Your task to perform on an android device: turn off location Image 0: 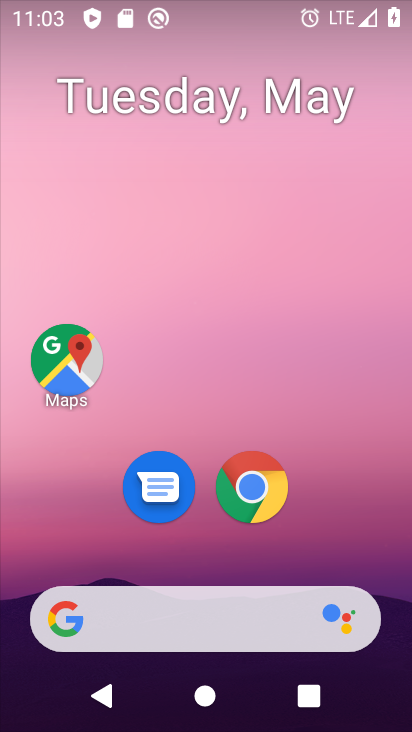
Step 0: drag from (263, 179) to (398, 276)
Your task to perform on an android device: turn off location Image 1: 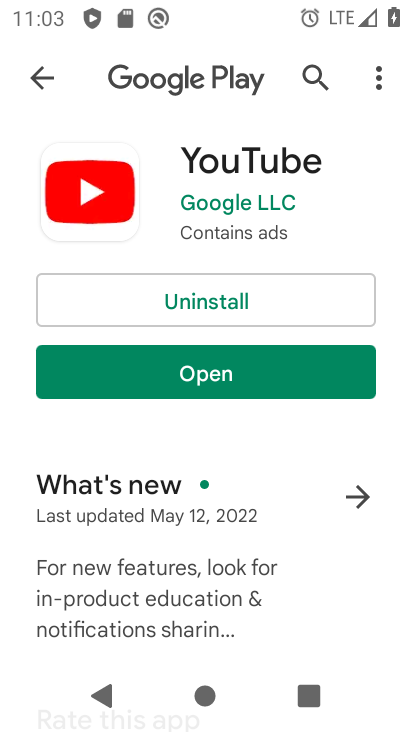
Step 1: press home button
Your task to perform on an android device: turn off location Image 2: 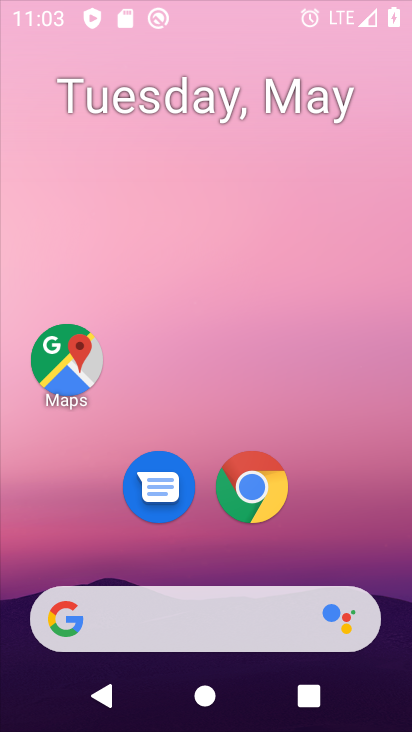
Step 2: drag from (208, 566) to (244, 179)
Your task to perform on an android device: turn off location Image 3: 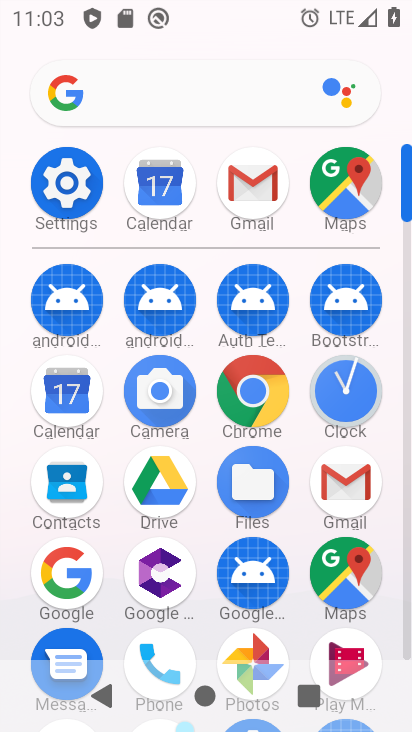
Step 3: click (70, 175)
Your task to perform on an android device: turn off location Image 4: 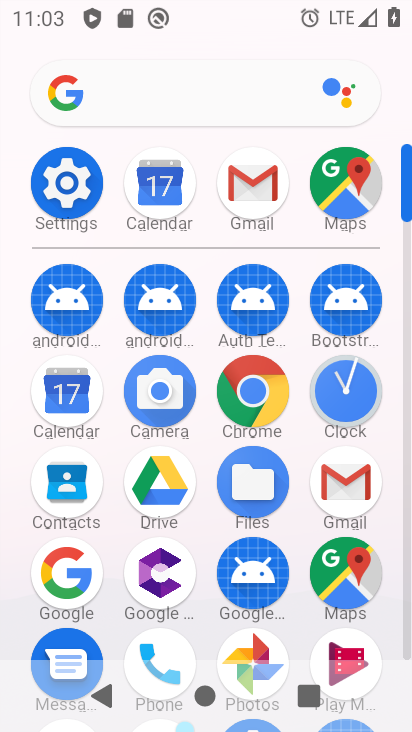
Step 4: click (70, 175)
Your task to perform on an android device: turn off location Image 5: 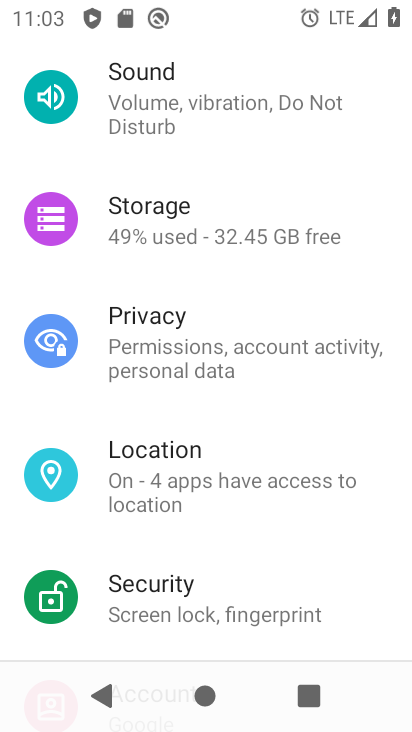
Step 5: click (217, 480)
Your task to perform on an android device: turn off location Image 6: 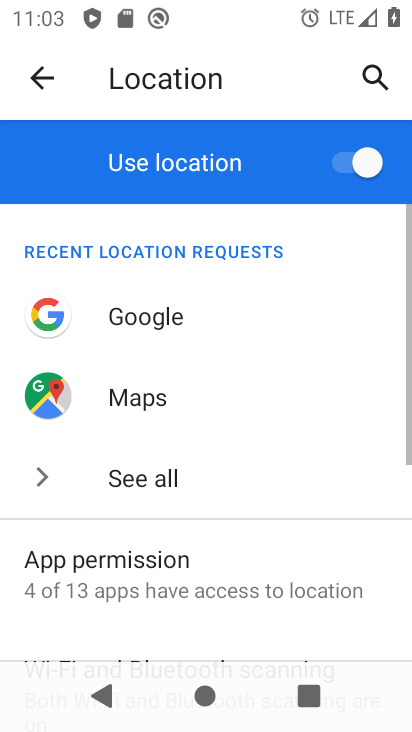
Step 6: click (363, 153)
Your task to perform on an android device: turn off location Image 7: 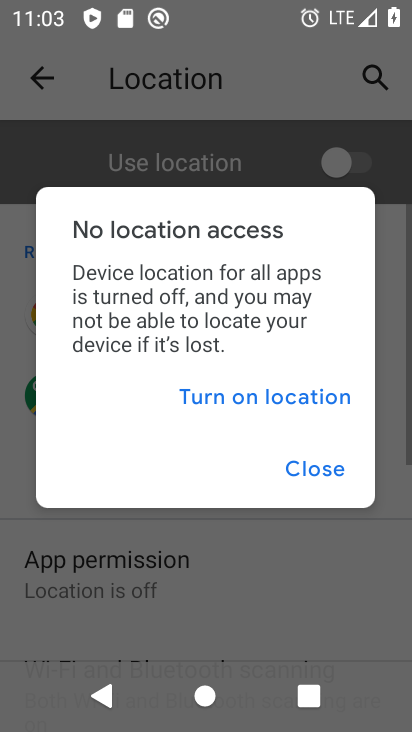
Step 7: task complete